Your task to perform on an android device: Open Yahoo.com Image 0: 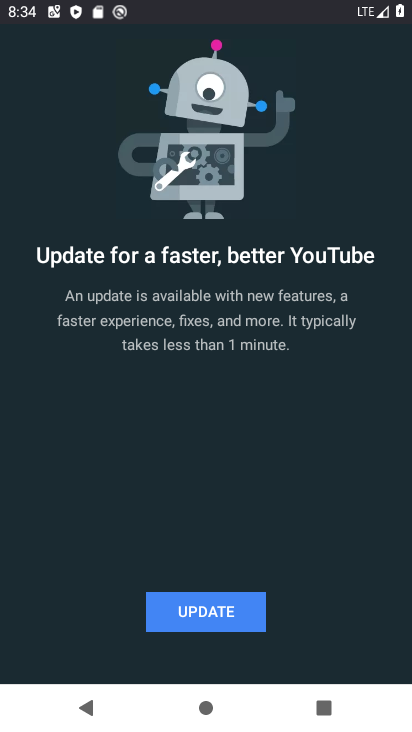
Step 0: press home button
Your task to perform on an android device: Open Yahoo.com Image 1: 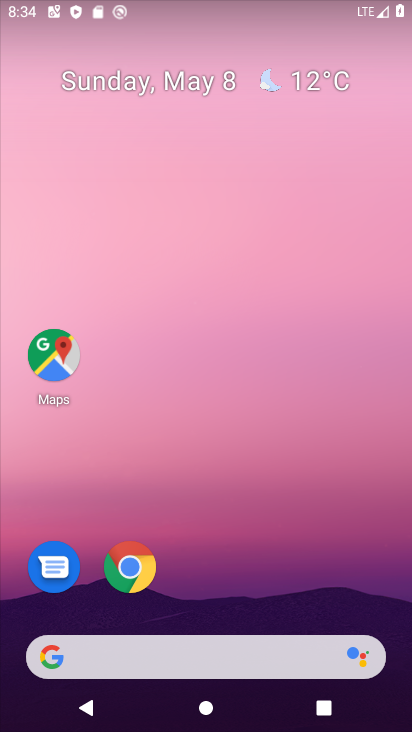
Step 1: click (128, 575)
Your task to perform on an android device: Open Yahoo.com Image 2: 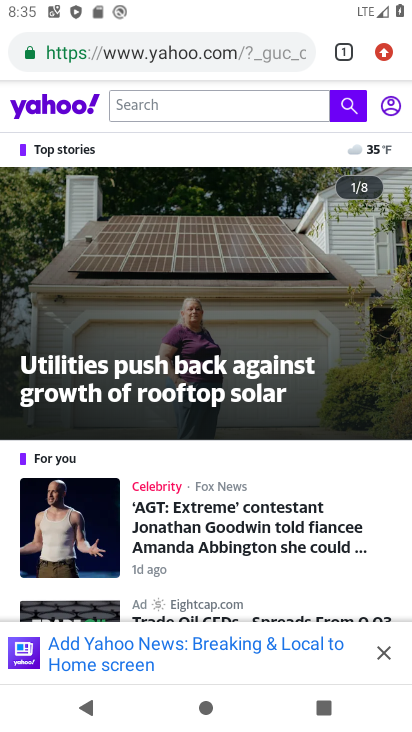
Step 2: task complete